Your task to perform on an android device: open sync settings in chrome Image 0: 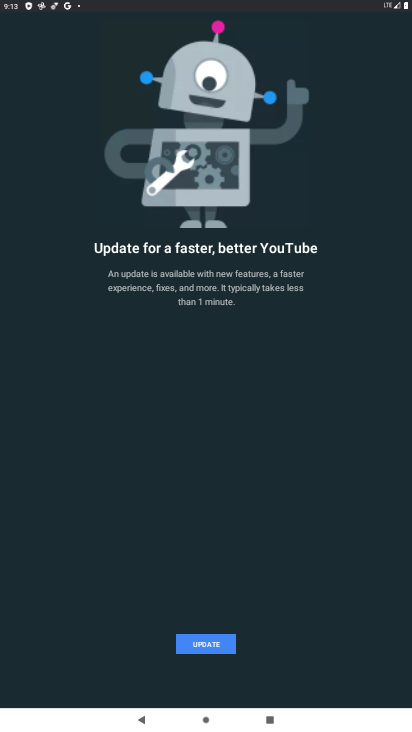
Step 0: press home button
Your task to perform on an android device: open sync settings in chrome Image 1: 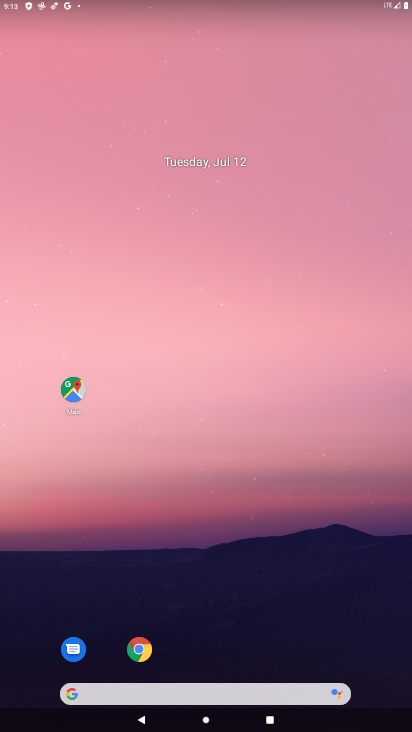
Step 1: click (138, 661)
Your task to perform on an android device: open sync settings in chrome Image 2: 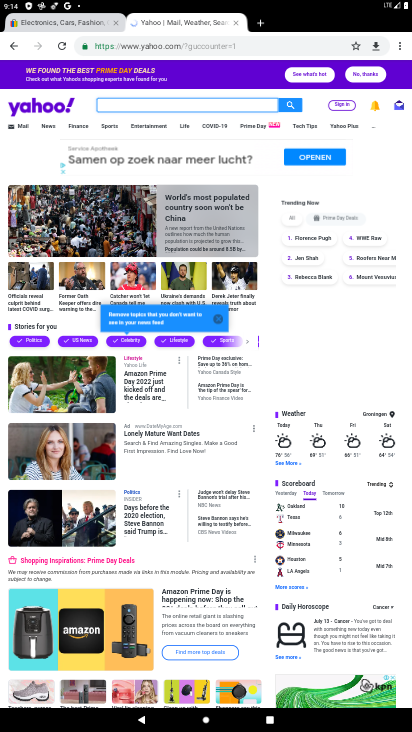
Step 2: click (404, 51)
Your task to perform on an android device: open sync settings in chrome Image 3: 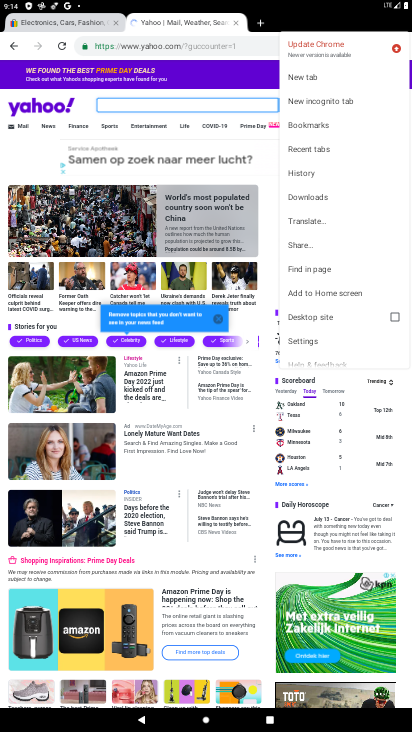
Step 3: click (307, 332)
Your task to perform on an android device: open sync settings in chrome Image 4: 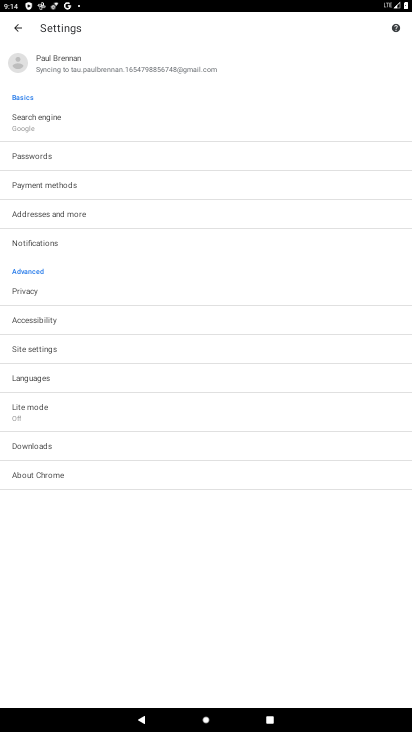
Step 4: click (144, 74)
Your task to perform on an android device: open sync settings in chrome Image 5: 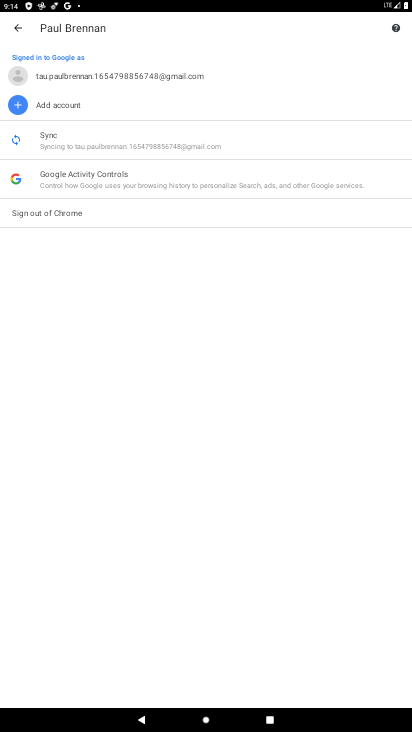
Step 5: task complete